Your task to perform on an android device: Open Google Chrome Image 0: 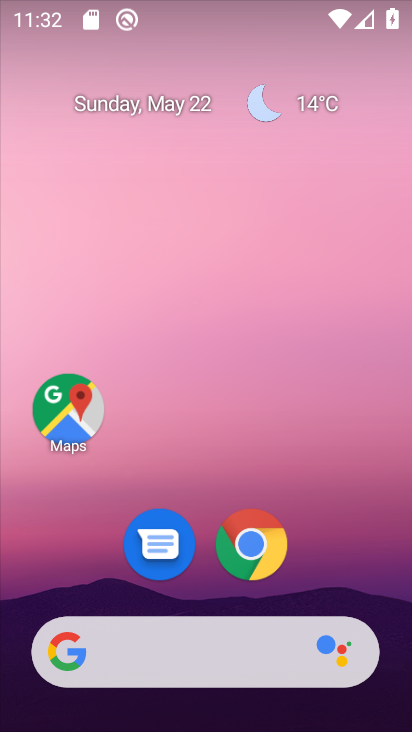
Step 0: click (248, 536)
Your task to perform on an android device: Open Google Chrome Image 1: 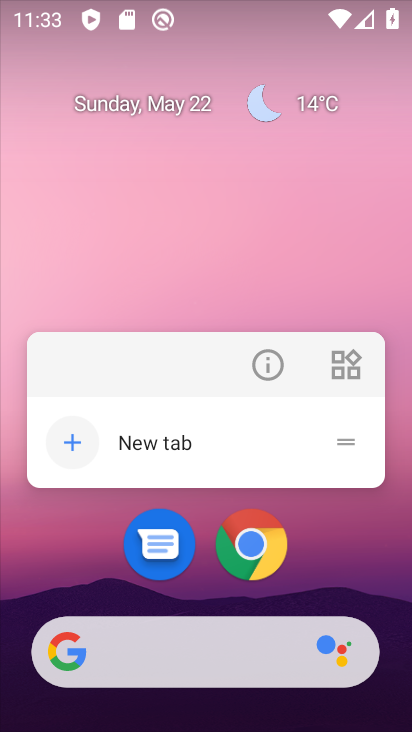
Step 1: click (243, 549)
Your task to perform on an android device: Open Google Chrome Image 2: 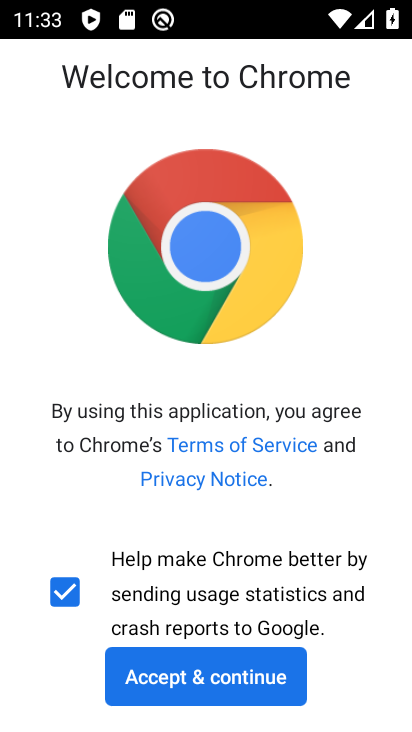
Step 2: click (247, 669)
Your task to perform on an android device: Open Google Chrome Image 3: 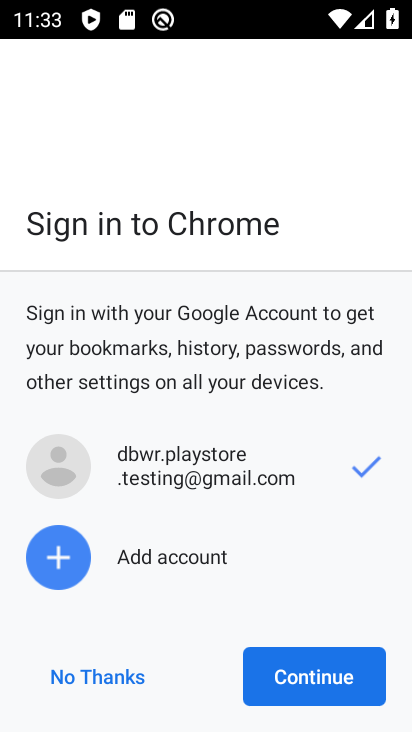
Step 3: click (310, 668)
Your task to perform on an android device: Open Google Chrome Image 4: 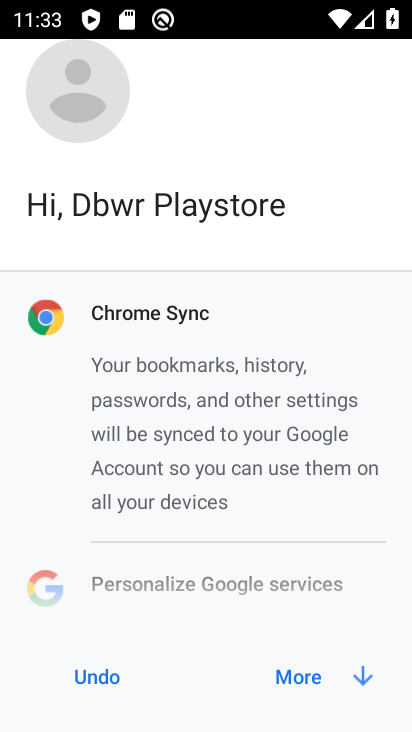
Step 4: click (306, 690)
Your task to perform on an android device: Open Google Chrome Image 5: 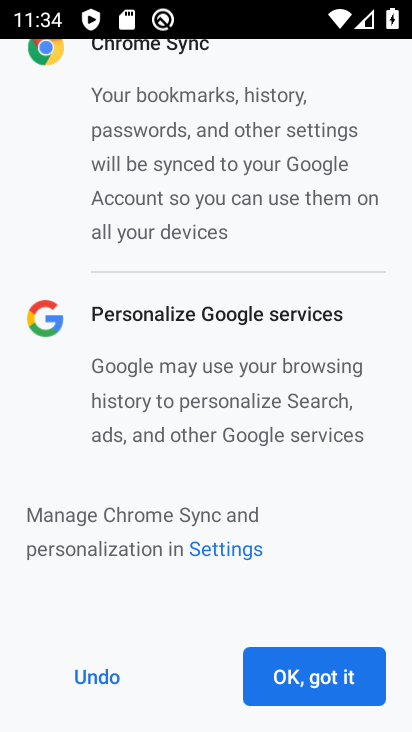
Step 5: click (304, 687)
Your task to perform on an android device: Open Google Chrome Image 6: 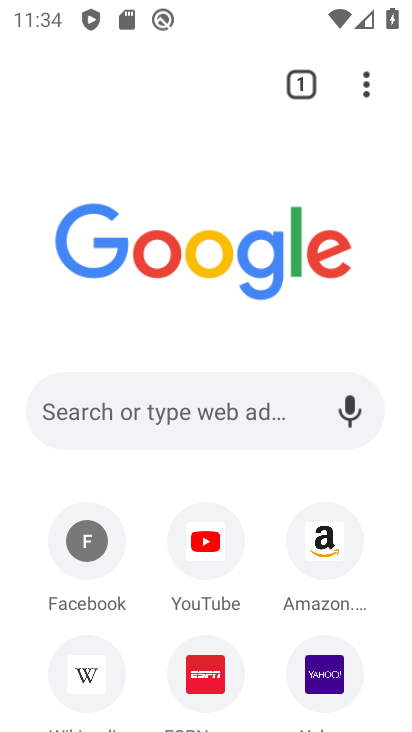
Step 6: task complete